Your task to perform on an android device: star an email in the gmail app Image 0: 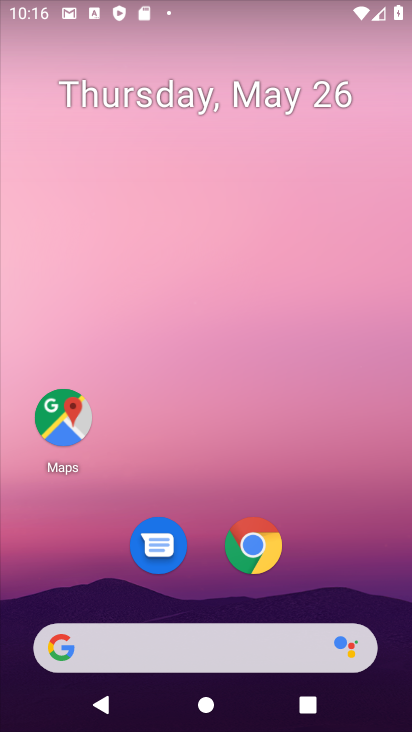
Step 0: press home button
Your task to perform on an android device: star an email in the gmail app Image 1: 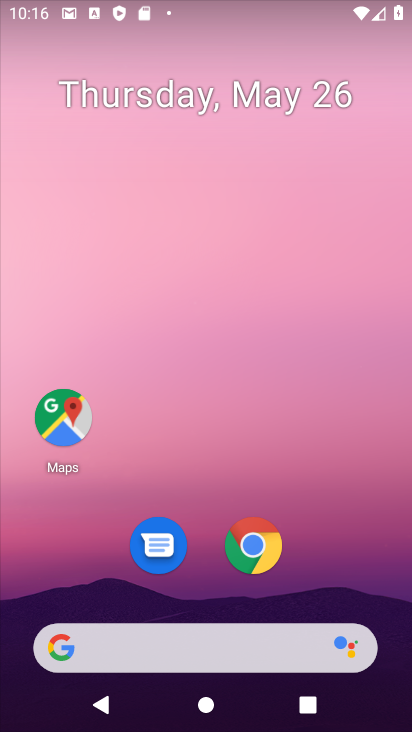
Step 1: drag from (300, 611) to (319, 103)
Your task to perform on an android device: star an email in the gmail app Image 2: 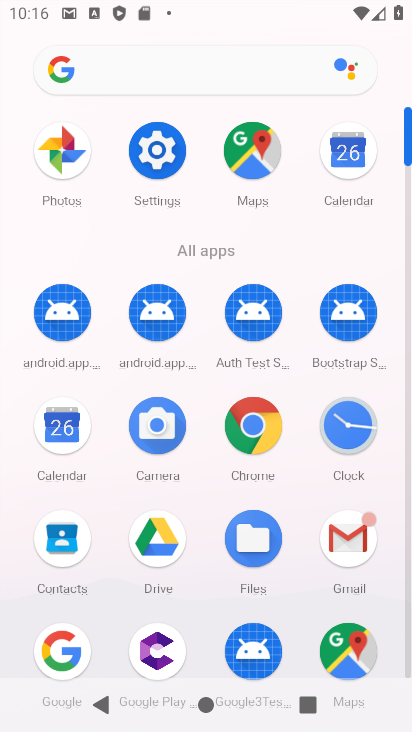
Step 2: click (339, 542)
Your task to perform on an android device: star an email in the gmail app Image 3: 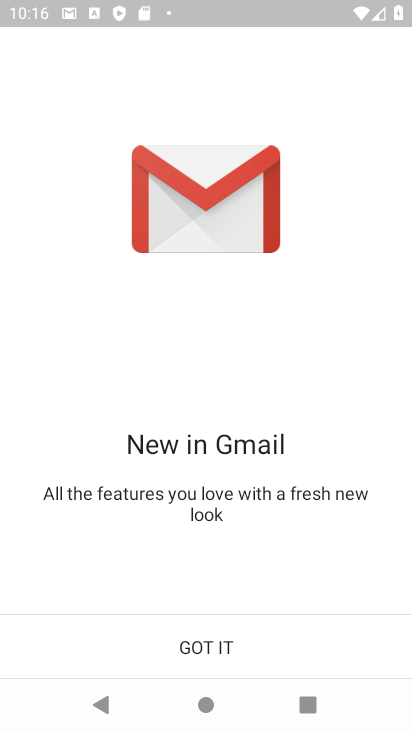
Step 3: click (205, 642)
Your task to perform on an android device: star an email in the gmail app Image 4: 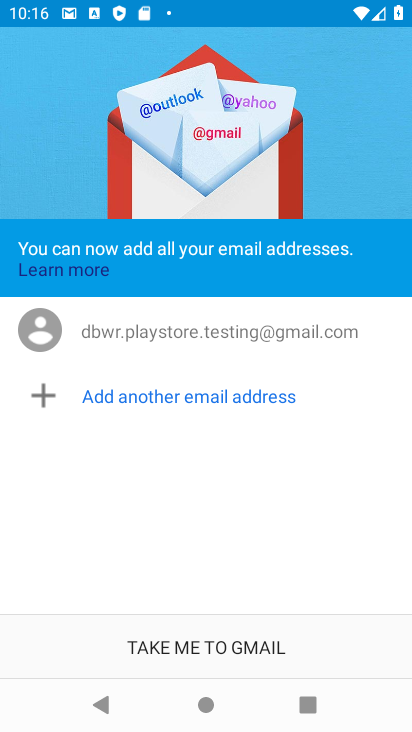
Step 4: click (205, 641)
Your task to perform on an android device: star an email in the gmail app Image 5: 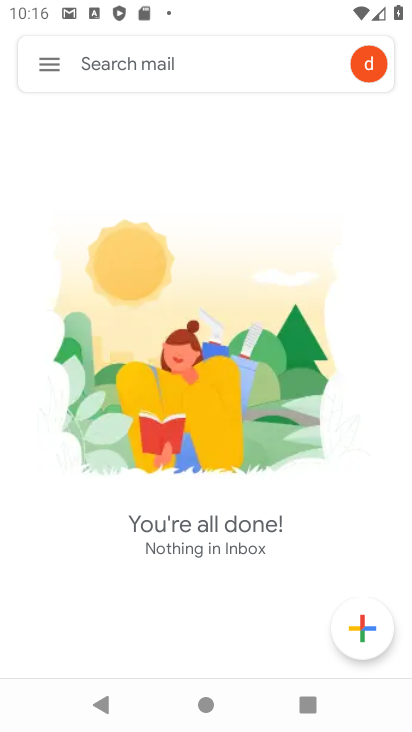
Step 5: click (58, 64)
Your task to perform on an android device: star an email in the gmail app Image 6: 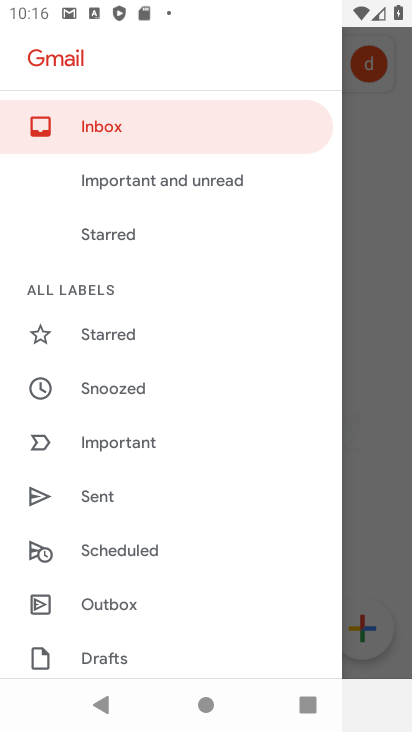
Step 6: drag from (248, 398) to (237, 194)
Your task to perform on an android device: star an email in the gmail app Image 7: 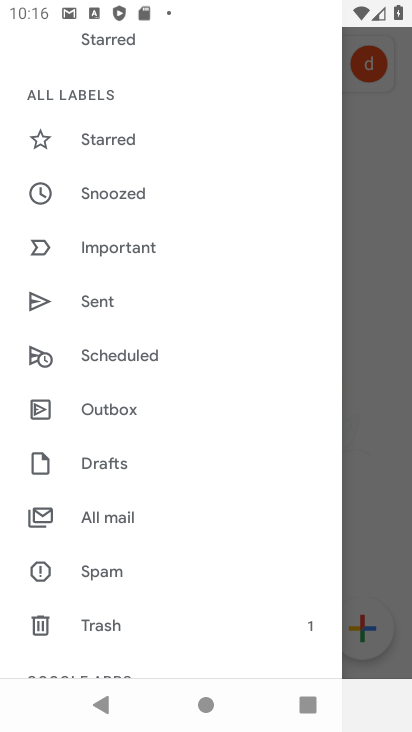
Step 7: click (100, 513)
Your task to perform on an android device: star an email in the gmail app Image 8: 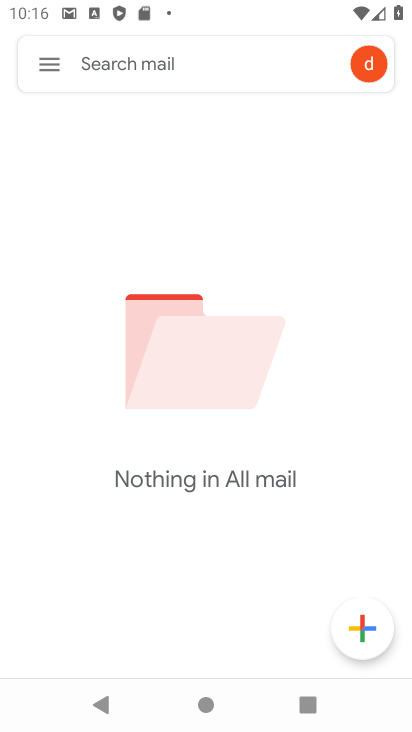
Step 8: task complete